Your task to perform on an android device: open chrome and create a bookmark for the current page Image 0: 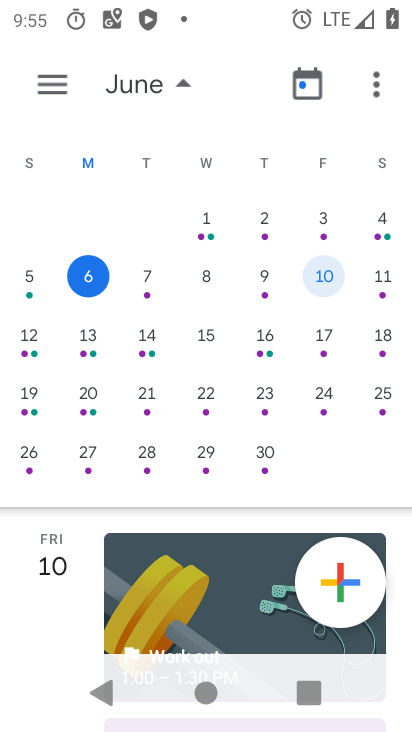
Step 0: press home button
Your task to perform on an android device: open chrome and create a bookmark for the current page Image 1: 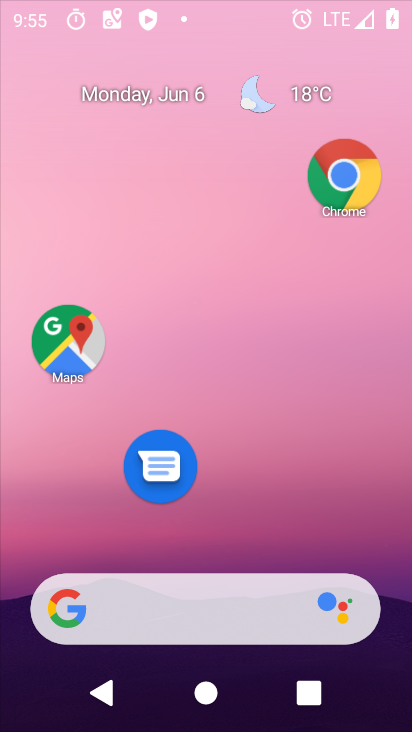
Step 1: drag from (172, 384) to (306, 28)
Your task to perform on an android device: open chrome and create a bookmark for the current page Image 2: 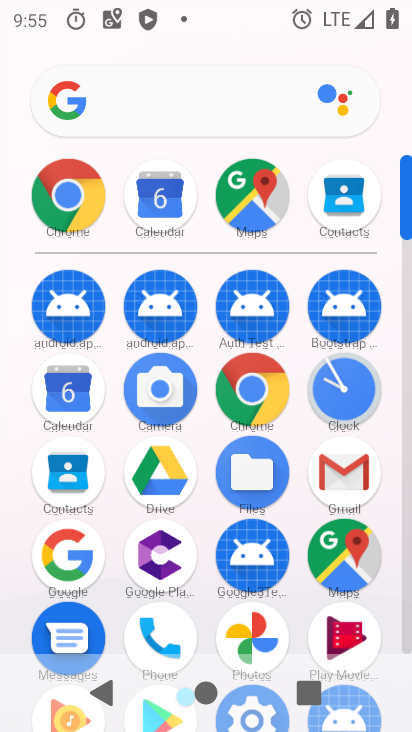
Step 2: click (66, 201)
Your task to perform on an android device: open chrome and create a bookmark for the current page Image 3: 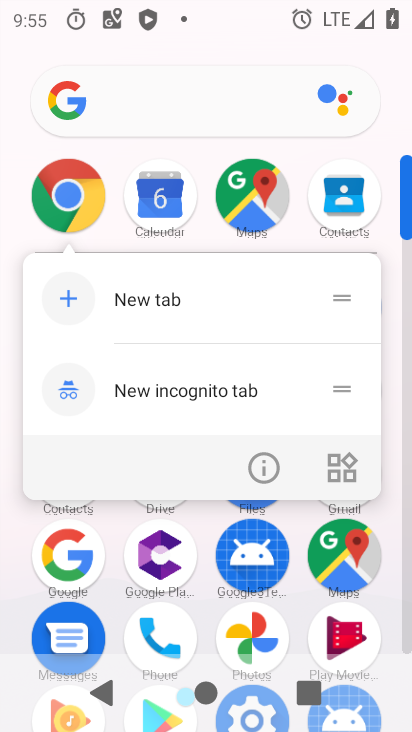
Step 3: click (248, 473)
Your task to perform on an android device: open chrome and create a bookmark for the current page Image 4: 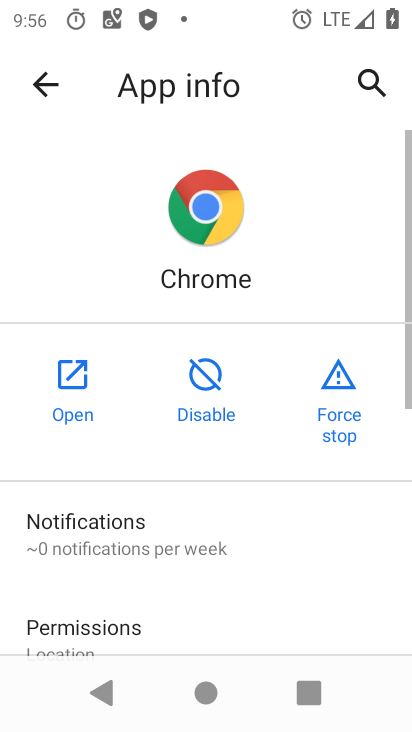
Step 4: click (60, 390)
Your task to perform on an android device: open chrome and create a bookmark for the current page Image 5: 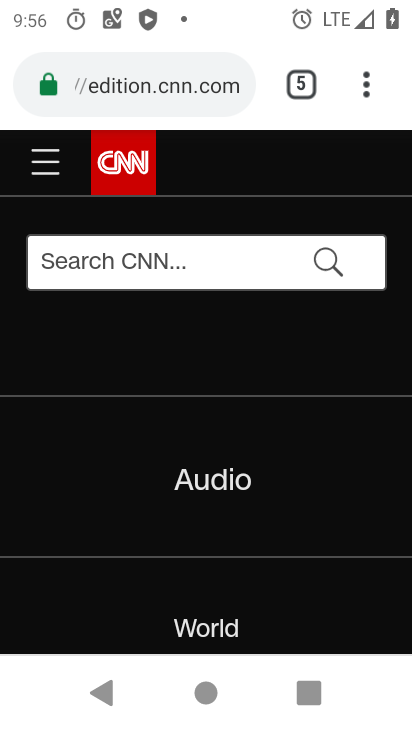
Step 5: click (361, 78)
Your task to perform on an android device: open chrome and create a bookmark for the current page Image 6: 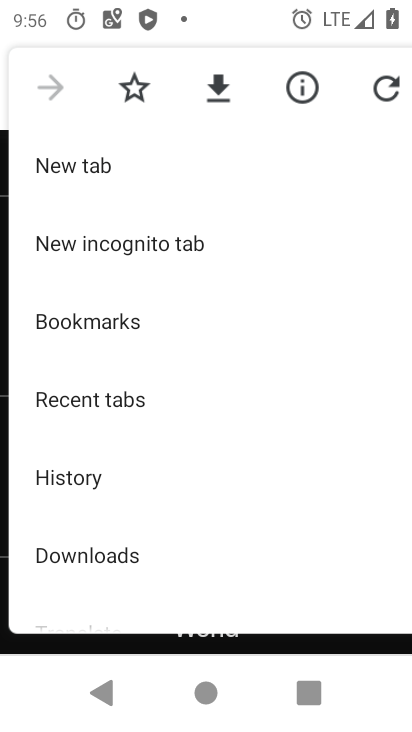
Step 6: click (136, 84)
Your task to perform on an android device: open chrome and create a bookmark for the current page Image 7: 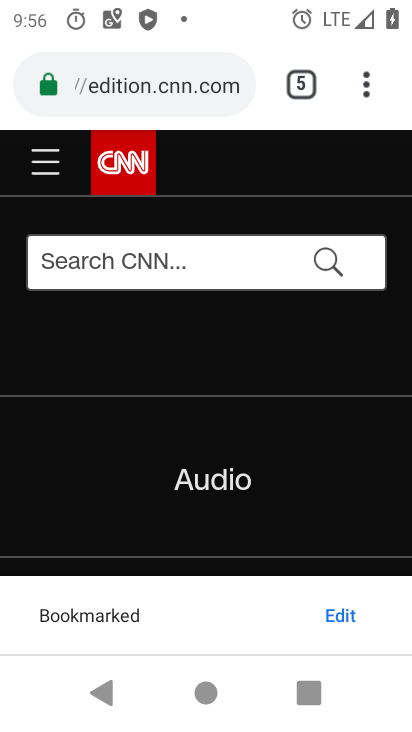
Step 7: task complete